Your task to perform on an android device: Open maps Image 0: 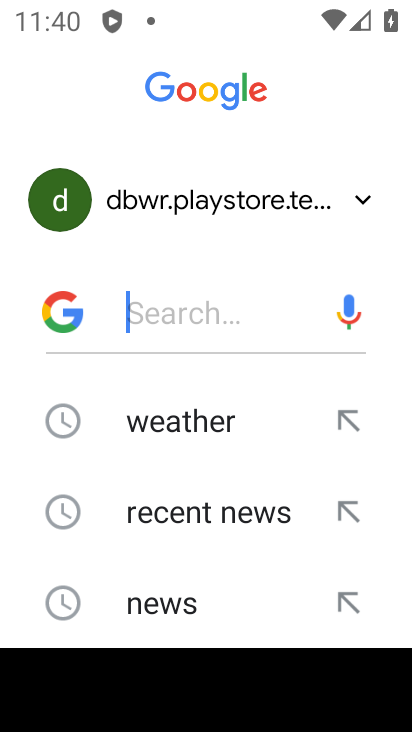
Step 0: press home button
Your task to perform on an android device: Open maps Image 1: 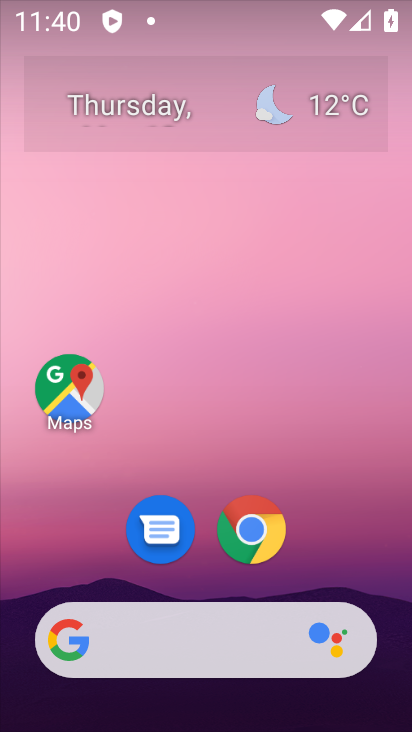
Step 1: click (58, 391)
Your task to perform on an android device: Open maps Image 2: 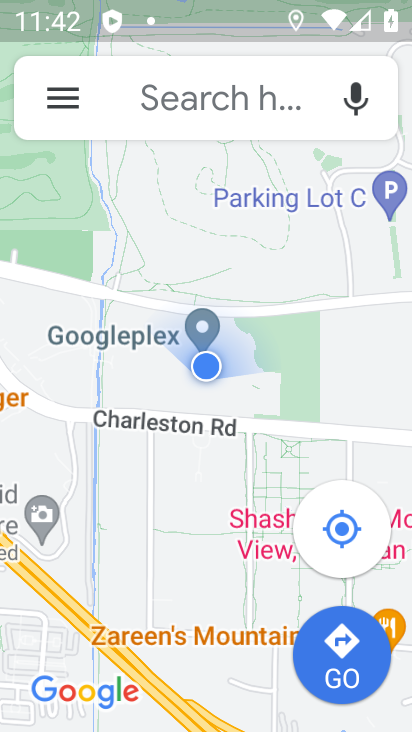
Step 2: task complete